Your task to perform on an android device: set the stopwatch Image 0: 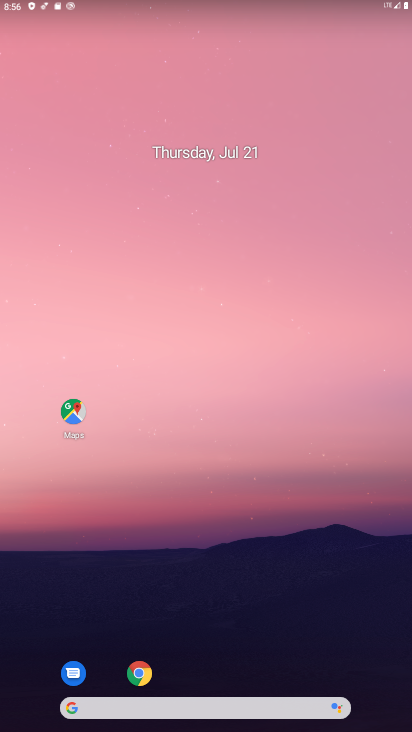
Step 0: drag from (224, 662) to (210, 207)
Your task to perform on an android device: set the stopwatch Image 1: 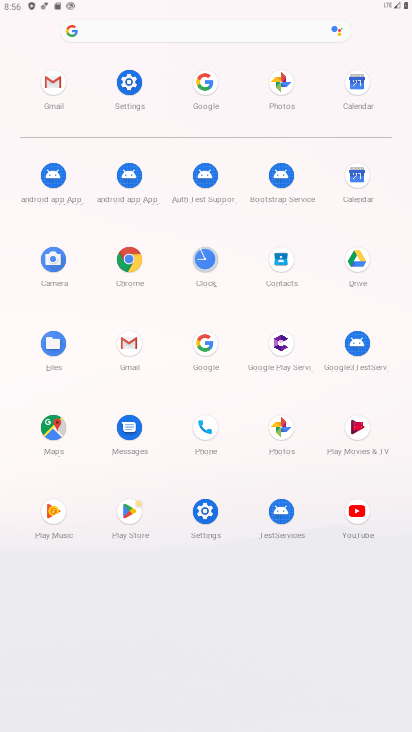
Step 1: click (201, 269)
Your task to perform on an android device: set the stopwatch Image 2: 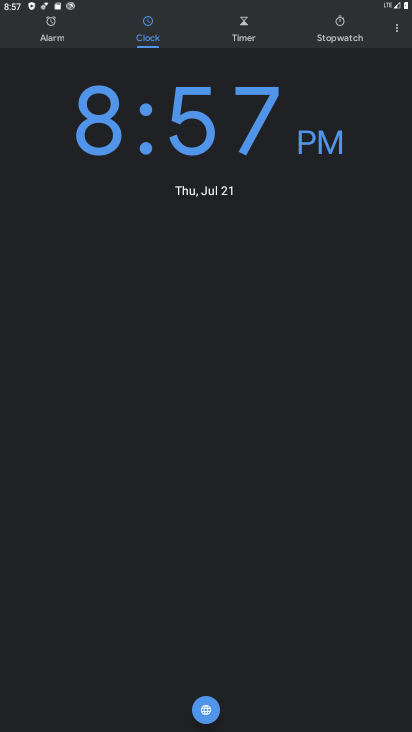
Step 2: click (350, 32)
Your task to perform on an android device: set the stopwatch Image 3: 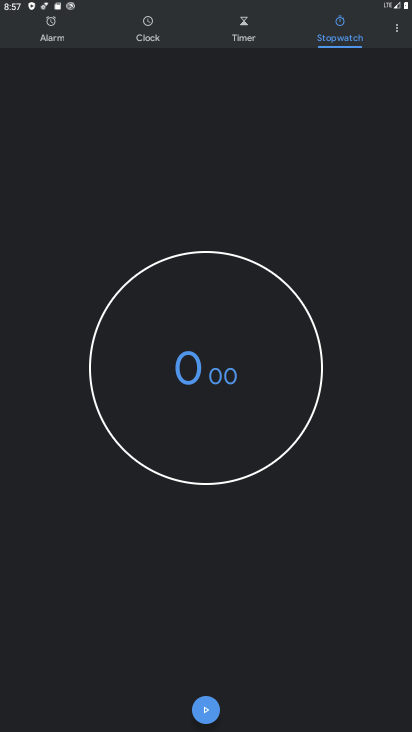
Step 3: task complete